Your task to perform on an android device: Search for Italian restaurants on Maps Image 0: 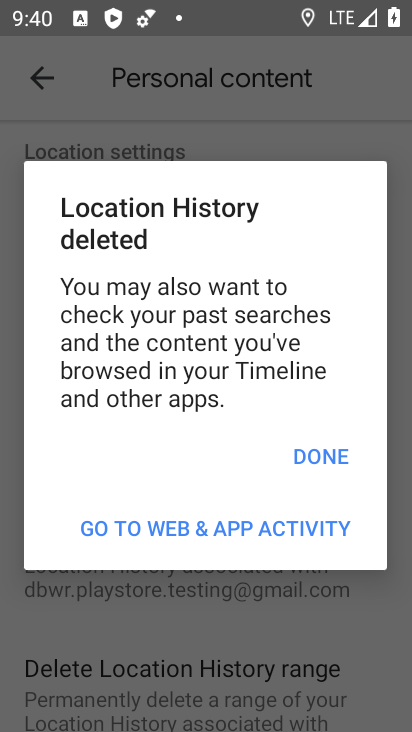
Step 0: press home button
Your task to perform on an android device: Search for Italian restaurants on Maps Image 1: 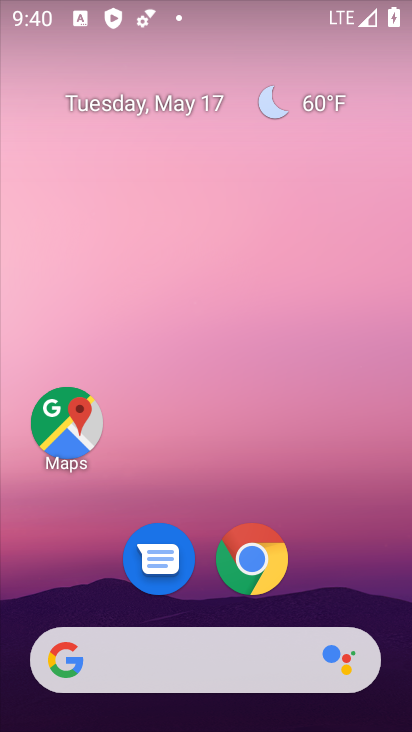
Step 1: click (86, 426)
Your task to perform on an android device: Search for Italian restaurants on Maps Image 2: 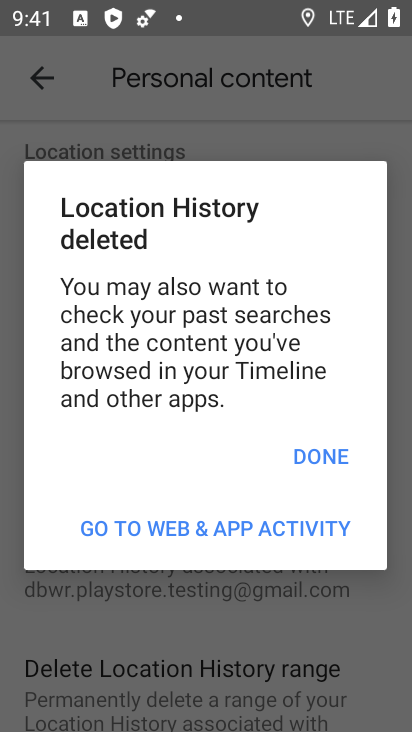
Step 2: click (327, 448)
Your task to perform on an android device: Search for Italian restaurants on Maps Image 3: 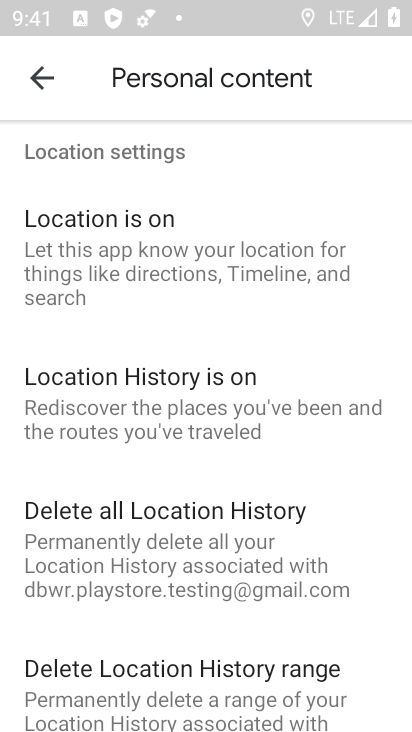
Step 3: click (30, 78)
Your task to perform on an android device: Search for Italian restaurants on Maps Image 4: 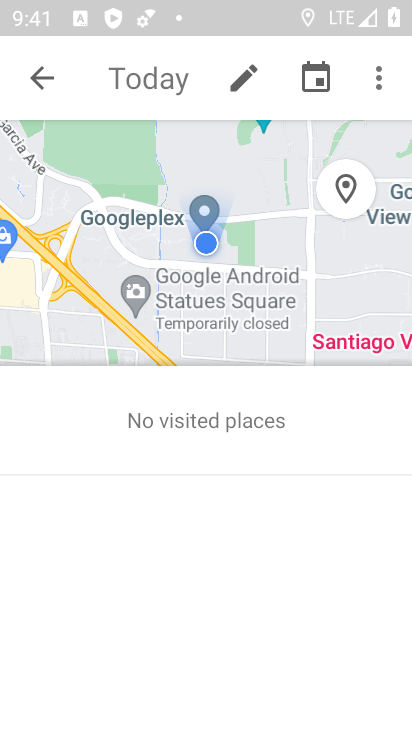
Step 4: click (48, 77)
Your task to perform on an android device: Search for Italian restaurants on Maps Image 5: 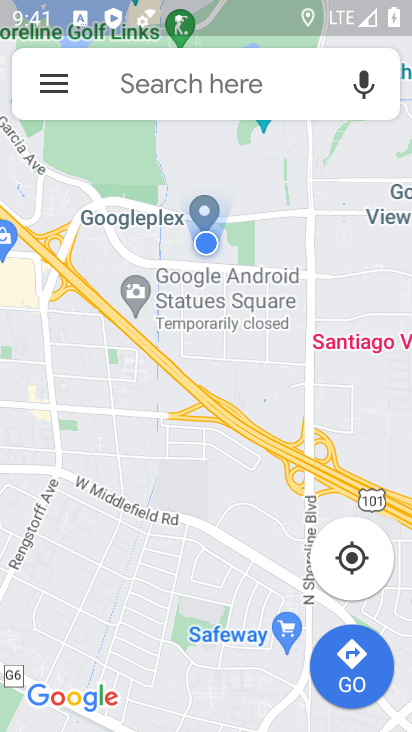
Step 5: click (176, 63)
Your task to perform on an android device: Search for Italian restaurants on Maps Image 6: 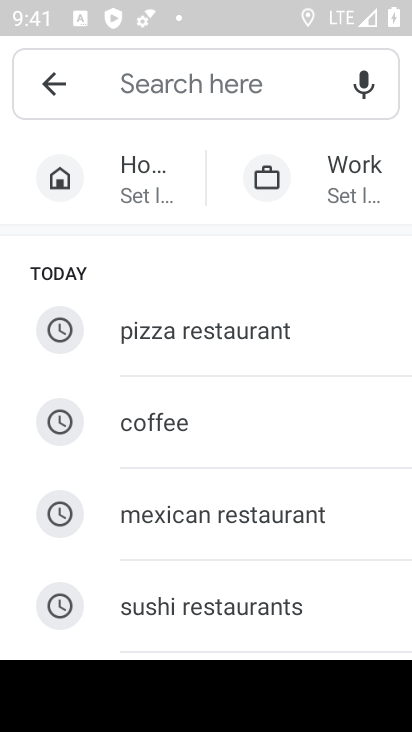
Step 6: type "Italian restaurants"
Your task to perform on an android device: Search for Italian restaurants on Maps Image 7: 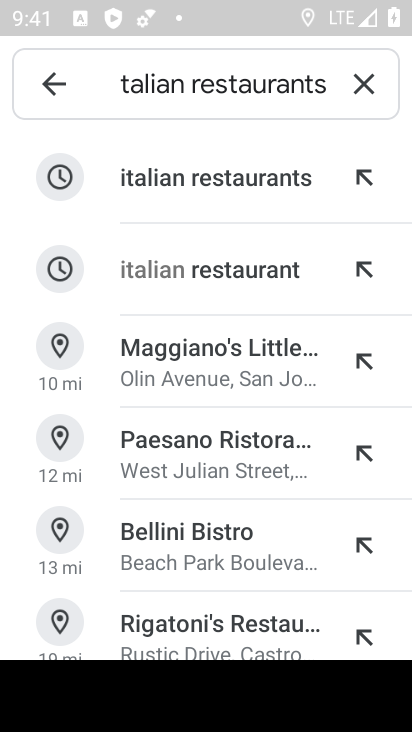
Step 7: click (187, 186)
Your task to perform on an android device: Search for Italian restaurants on Maps Image 8: 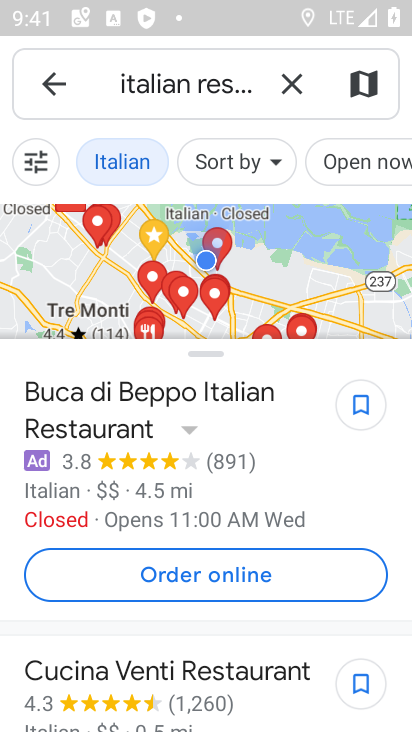
Step 8: task complete